Your task to perform on an android device: open wifi settings Image 0: 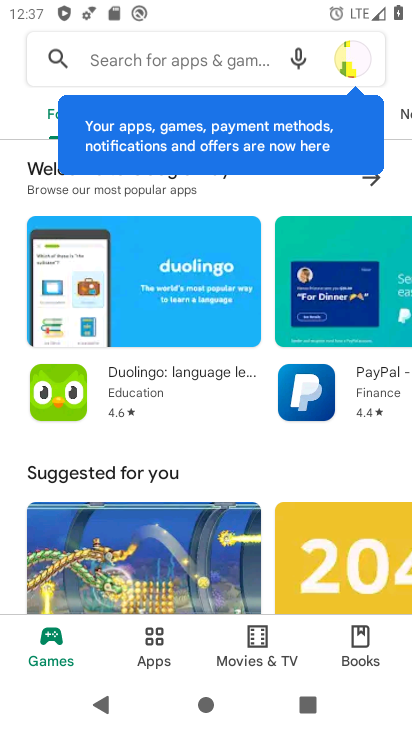
Step 0: drag from (301, 98) to (269, 705)
Your task to perform on an android device: open wifi settings Image 1: 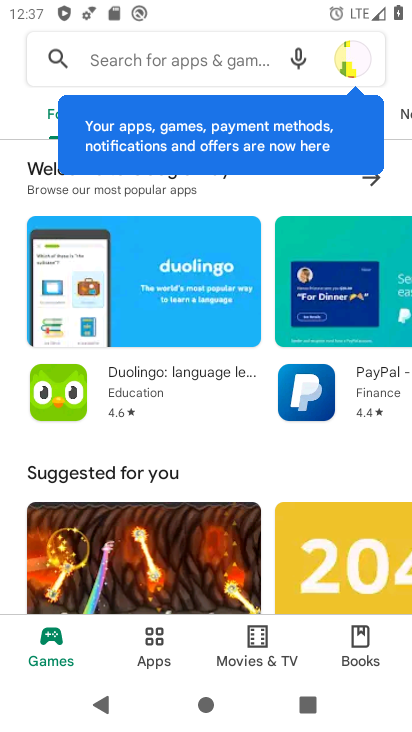
Step 1: drag from (108, 13) to (131, 673)
Your task to perform on an android device: open wifi settings Image 2: 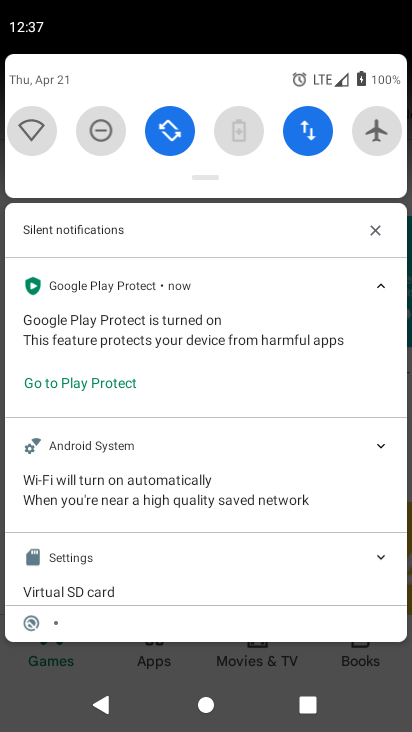
Step 2: click (38, 119)
Your task to perform on an android device: open wifi settings Image 3: 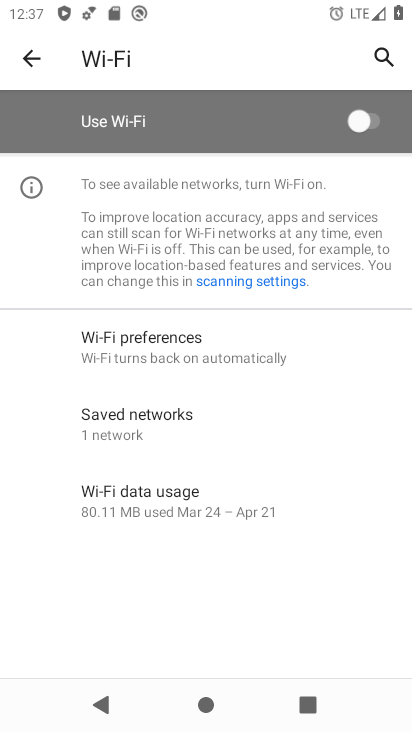
Step 3: task complete